Your task to perform on an android device: turn off airplane mode Image 0: 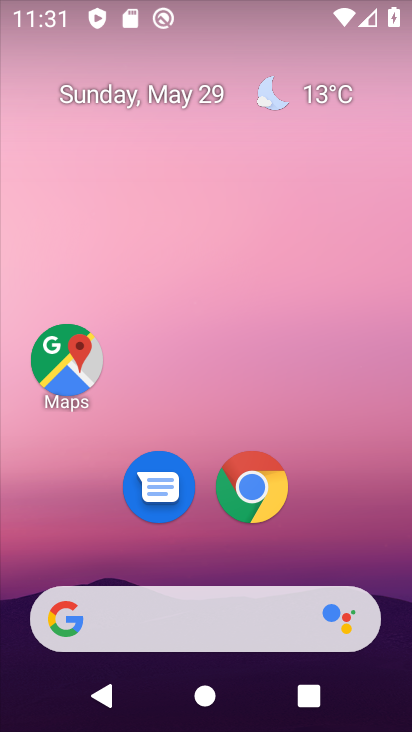
Step 0: drag from (376, 18) to (367, 471)
Your task to perform on an android device: turn off airplane mode Image 1: 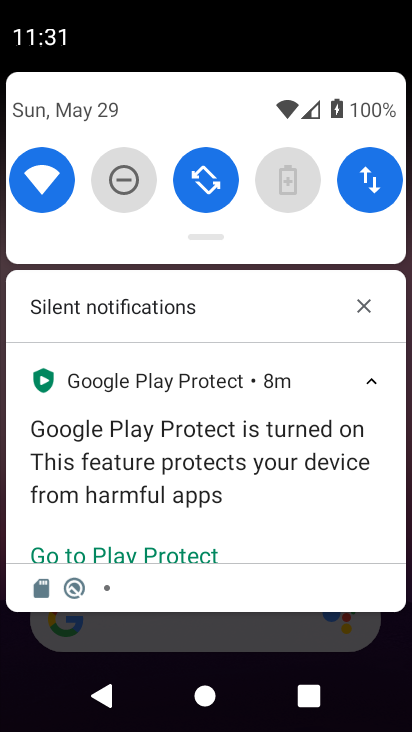
Step 1: task complete